Your task to perform on an android device: toggle pop-ups in chrome Image 0: 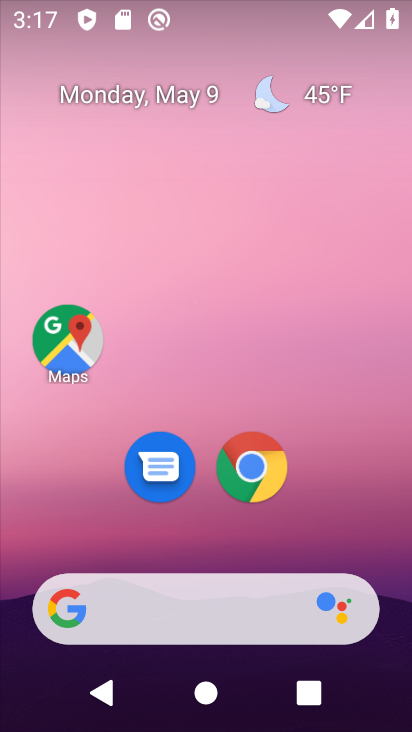
Step 0: click (271, 463)
Your task to perform on an android device: toggle pop-ups in chrome Image 1: 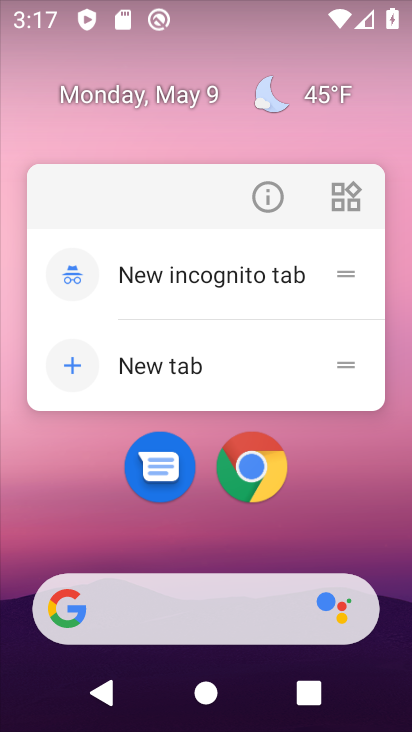
Step 1: click (269, 487)
Your task to perform on an android device: toggle pop-ups in chrome Image 2: 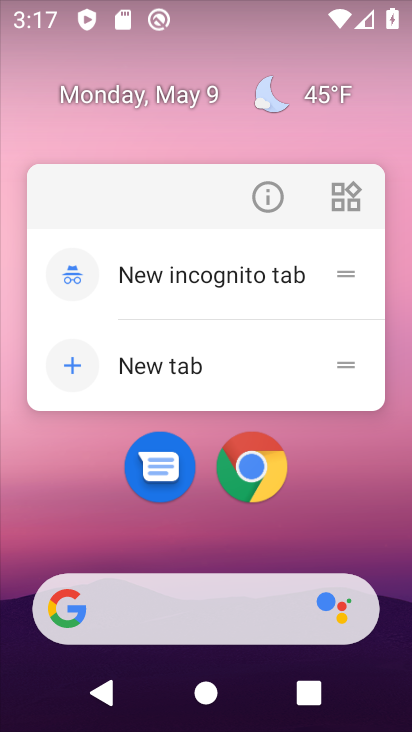
Step 2: click (257, 485)
Your task to perform on an android device: toggle pop-ups in chrome Image 3: 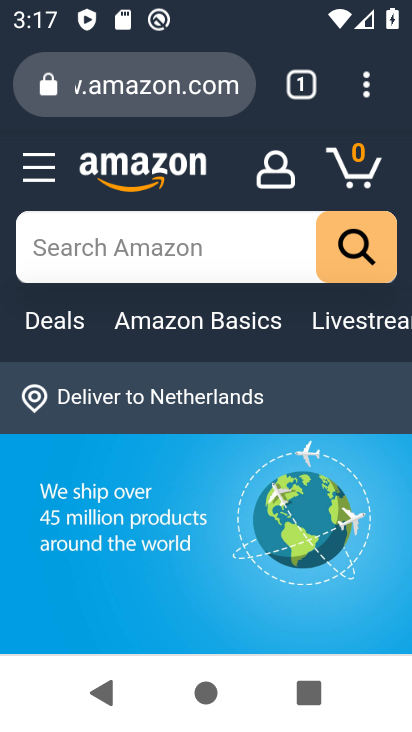
Step 3: drag from (370, 92) to (192, 524)
Your task to perform on an android device: toggle pop-ups in chrome Image 4: 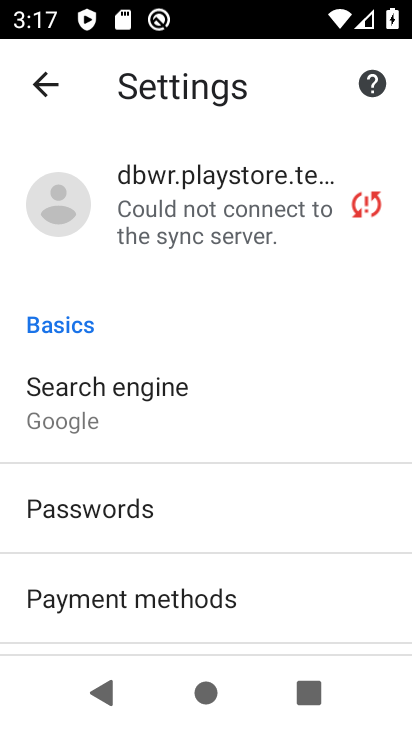
Step 4: drag from (208, 523) to (211, 352)
Your task to perform on an android device: toggle pop-ups in chrome Image 5: 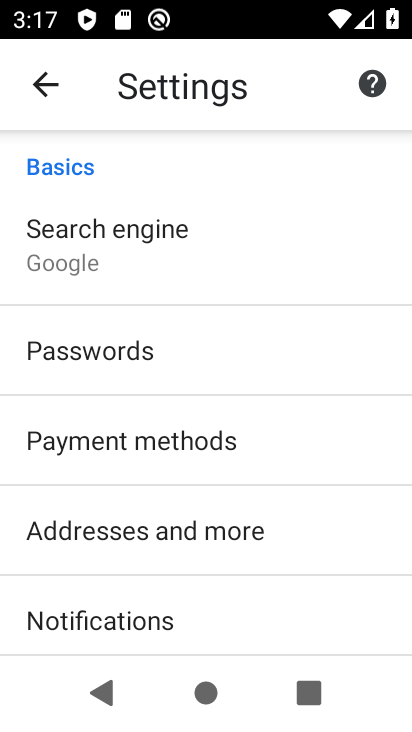
Step 5: drag from (208, 556) to (215, 300)
Your task to perform on an android device: toggle pop-ups in chrome Image 6: 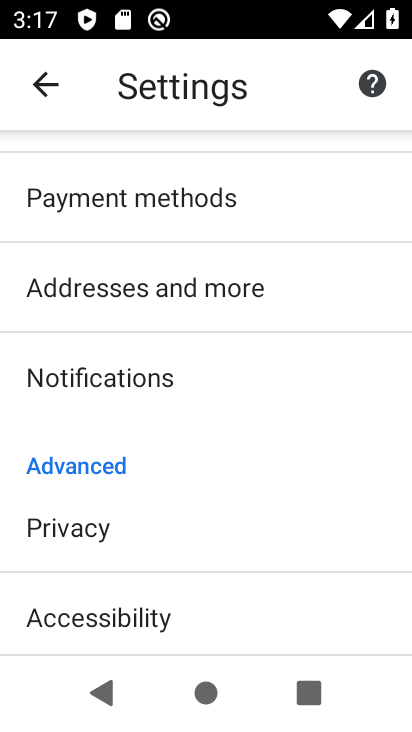
Step 6: drag from (226, 609) to (227, 306)
Your task to perform on an android device: toggle pop-ups in chrome Image 7: 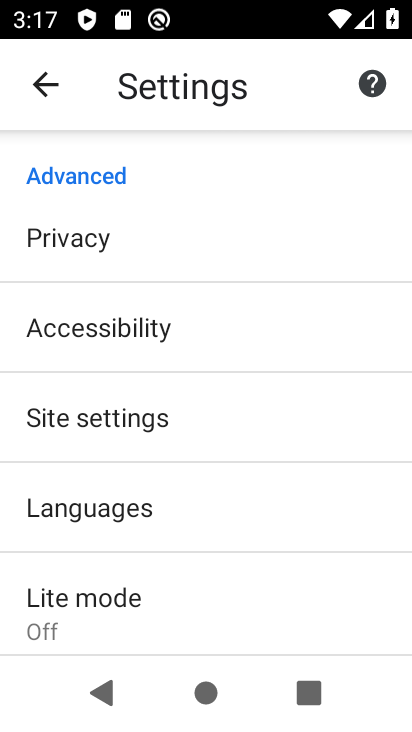
Step 7: click (129, 426)
Your task to perform on an android device: toggle pop-ups in chrome Image 8: 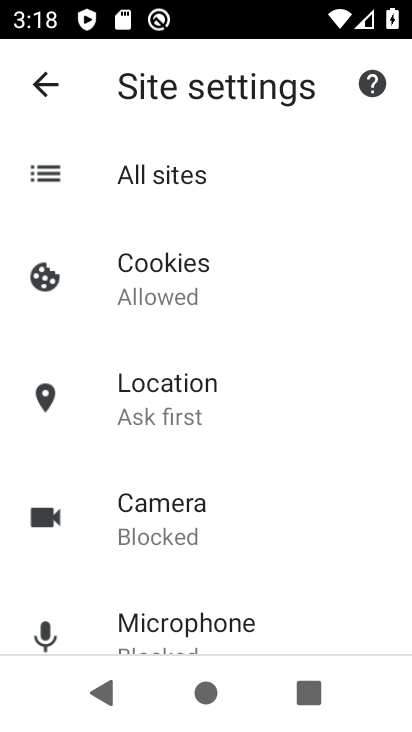
Step 8: drag from (225, 576) to (237, 250)
Your task to perform on an android device: toggle pop-ups in chrome Image 9: 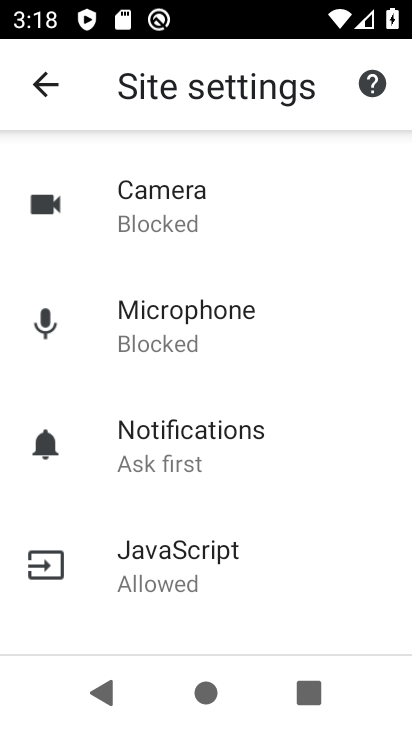
Step 9: drag from (253, 525) to (277, 268)
Your task to perform on an android device: toggle pop-ups in chrome Image 10: 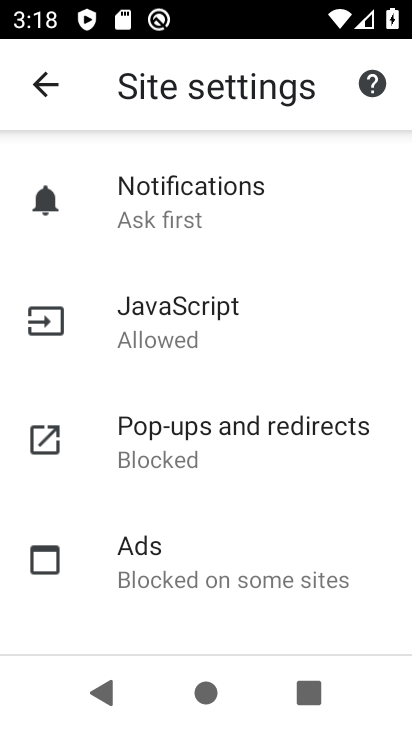
Step 10: click (262, 449)
Your task to perform on an android device: toggle pop-ups in chrome Image 11: 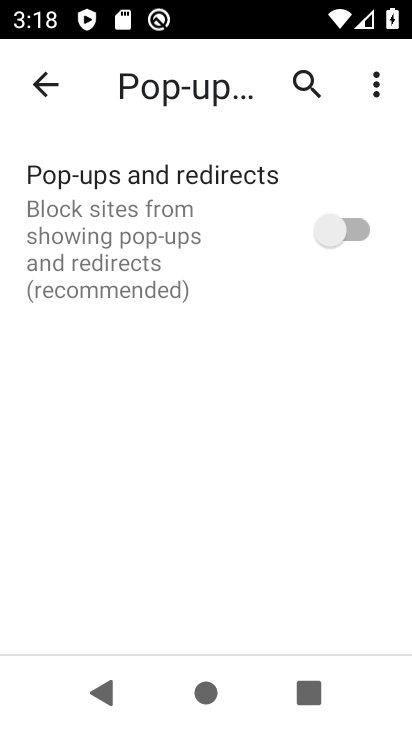
Step 11: click (338, 237)
Your task to perform on an android device: toggle pop-ups in chrome Image 12: 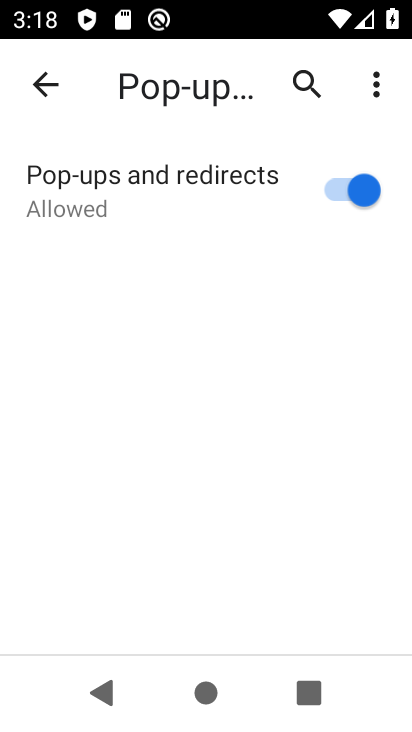
Step 12: task complete